Your task to perform on an android device: turn on priority inbox in the gmail app Image 0: 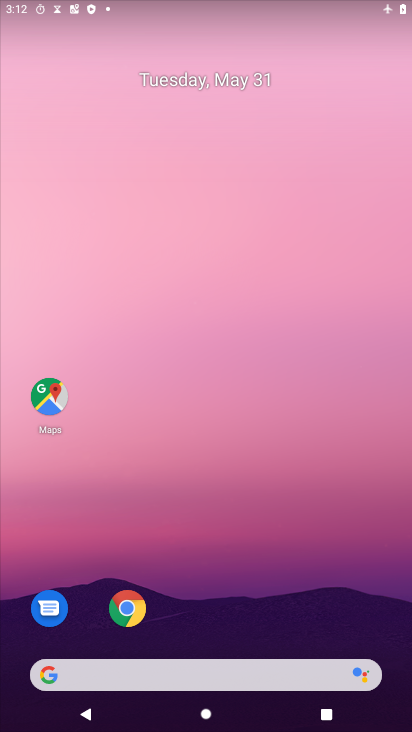
Step 0: click (269, 317)
Your task to perform on an android device: turn on priority inbox in the gmail app Image 1: 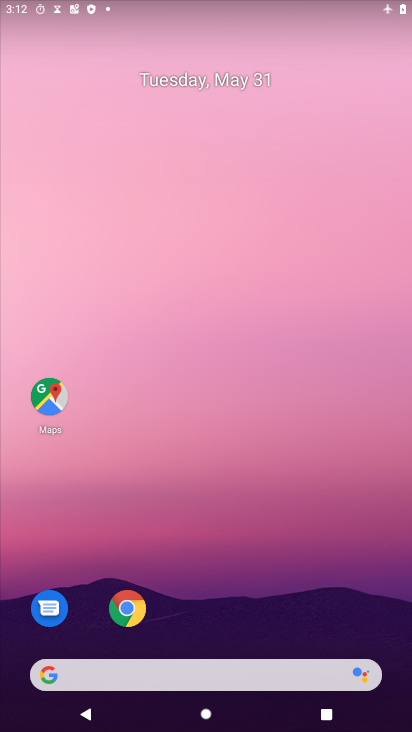
Step 1: drag from (210, 613) to (310, 155)
Your task to perform on an android device: turn on priority inbox in the gmail app Image 2: 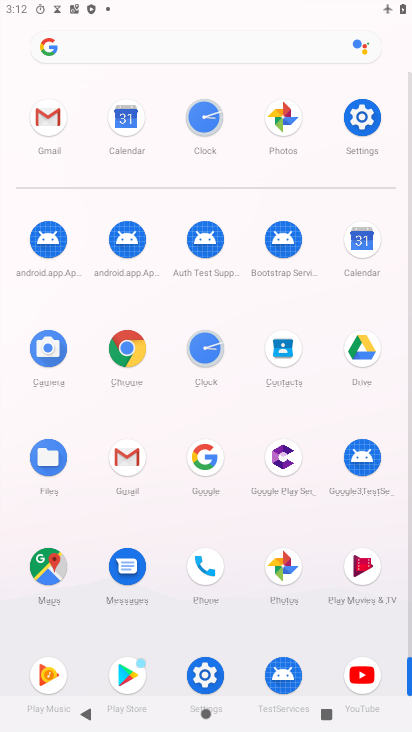
Step 2: click (122, 463)
Your task to perform on an android device: turn on priority inbox in the gmail app Image 3: 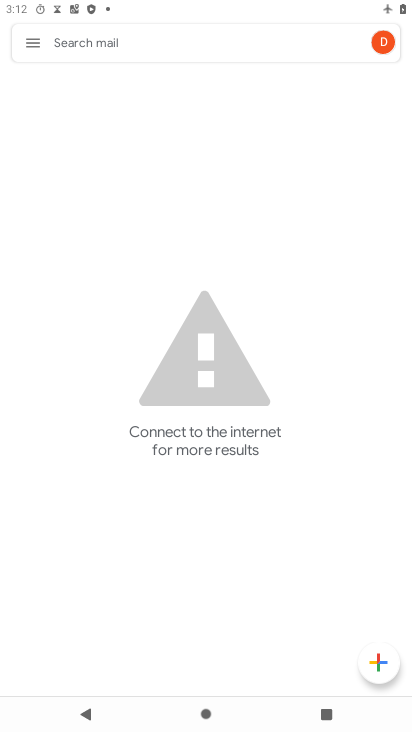
Step 3: click (36, 43)
Your task to perform on an android device: turn on priority inbox in the gmail app Image 4: 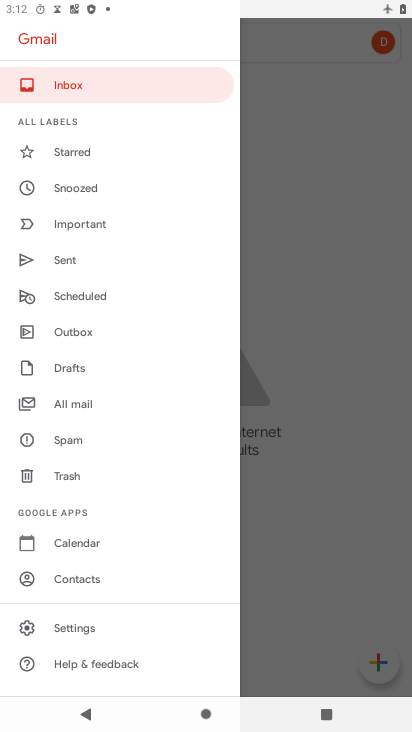
Step 4: click (89, 629)
Your task to perform on an android device: turn on priority inbox in the gmail app Image 5: 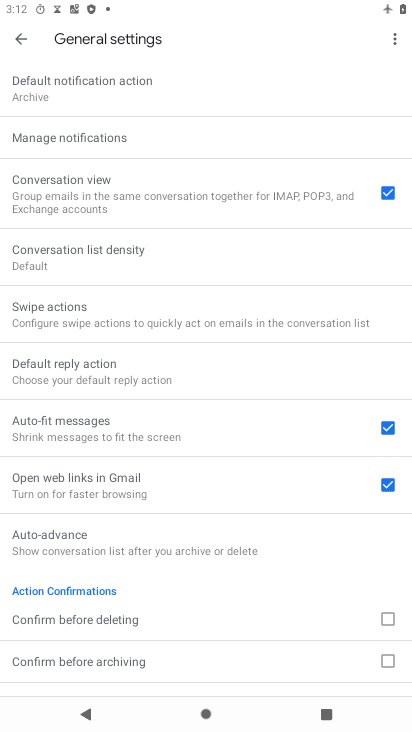
Step 5: click (21, 42)
Your task to perform on an android device: turn on priority inbox in the gmail app Image 6: 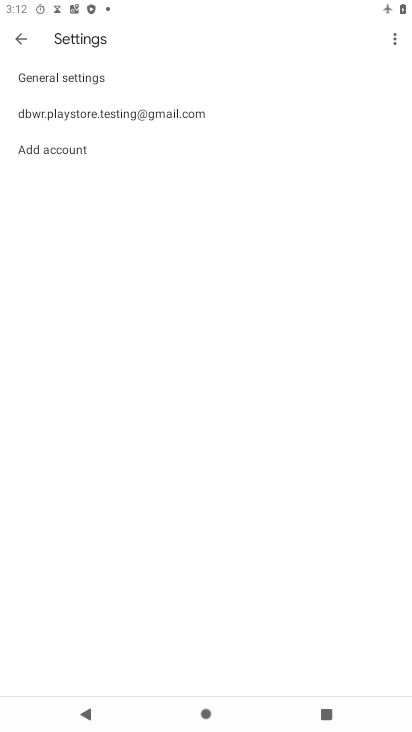
Step 6: click (80, 122)
Your task to perform on an android device: turn on priority inbox in the gmail app Image 7: 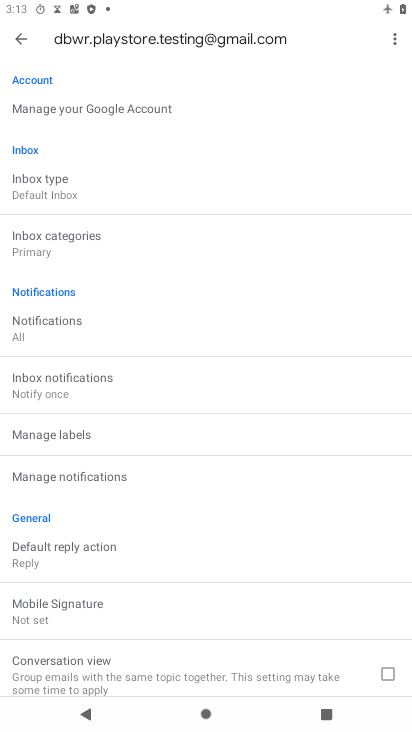
Step 7: click (80, 209)
Your task to perform on an android device: turn on priority inbox in the gmail app Image 8: 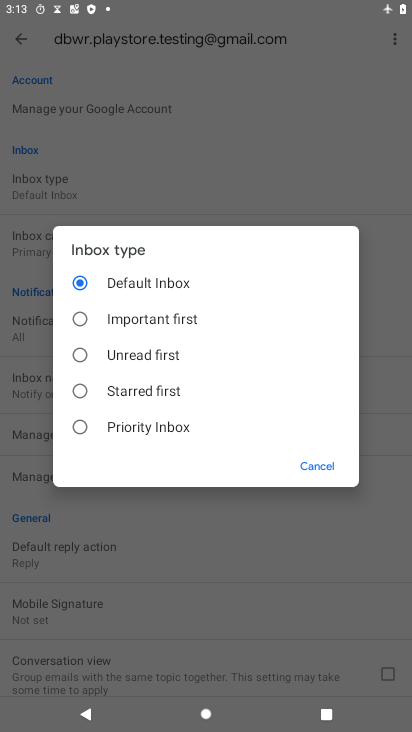
Step 8: click (127, 434)
Your task to perform on an android device: turn on priority inbox in the gmail app Image 9: 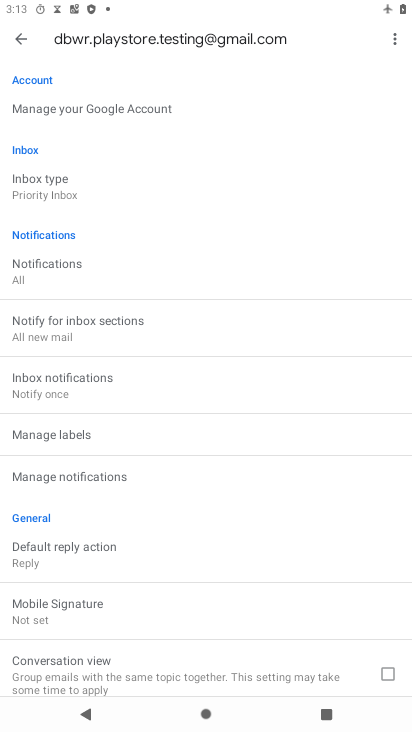
Step 9: task complete